Your task to perform on an android device: Is it going to rain tomorrow? Image 0: 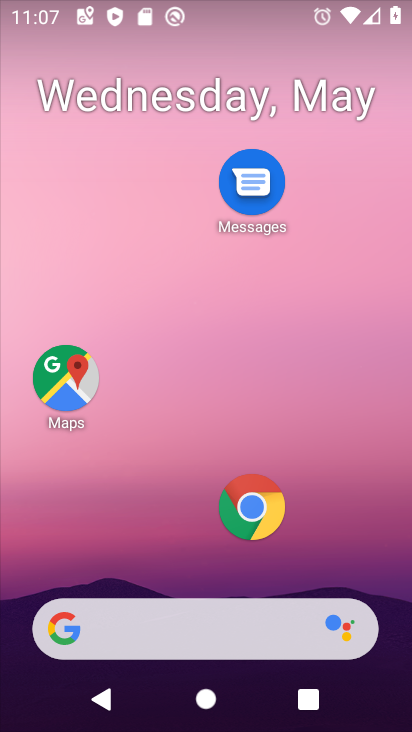
Step 0: press home button
Your task to perform on an android device: Is it going to rain tomorrow? Image 1: 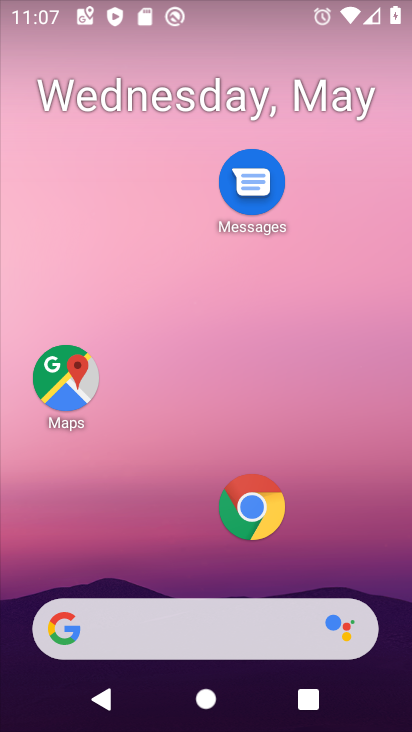
Step 1: drag from (206, 577) to (217, 97)
Your task to perform on an android device: Is it going to rain tomorrow? Image 2: 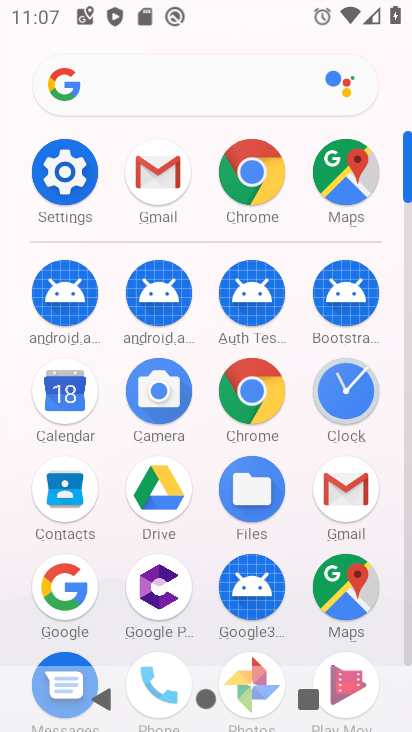
Step 2: press home button
Your task to perform on an android device: Is it going to rain tomorrow? Image 3: 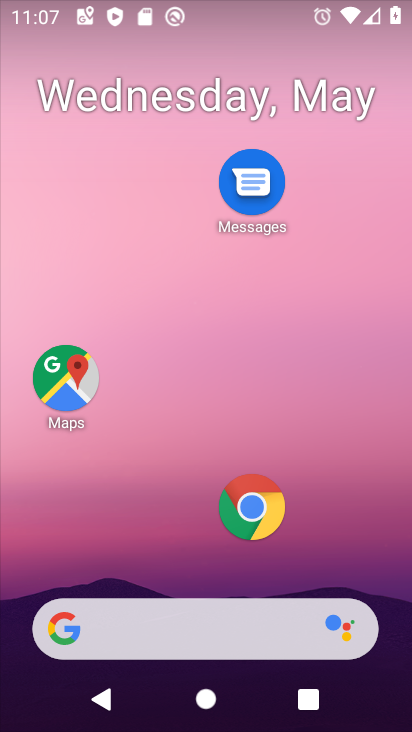
Step 3: drag from (9, 262) to (381, 298)
Your task to perform on an android device: Is it going to rain tomorrow? Image 4: 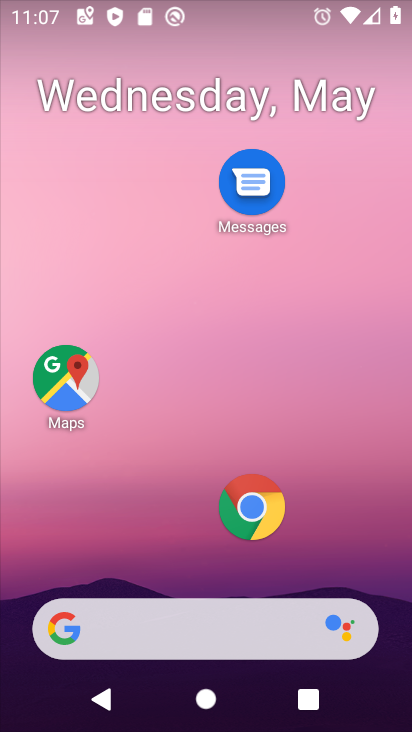
Step 4: drag from (5, 273) to (400, 312)
Your task to perform on an android device: Is it going to rain tomorrow? Image 5: 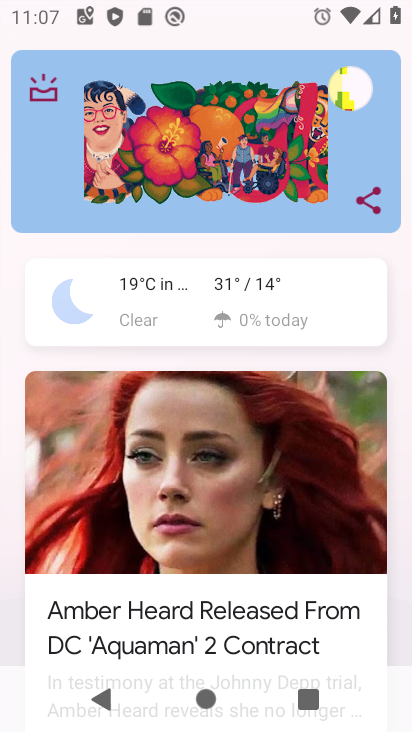
Step 5: click (252, 289)
Your task to perform on an android device: Is it going to rain tomorrow? Image 6: 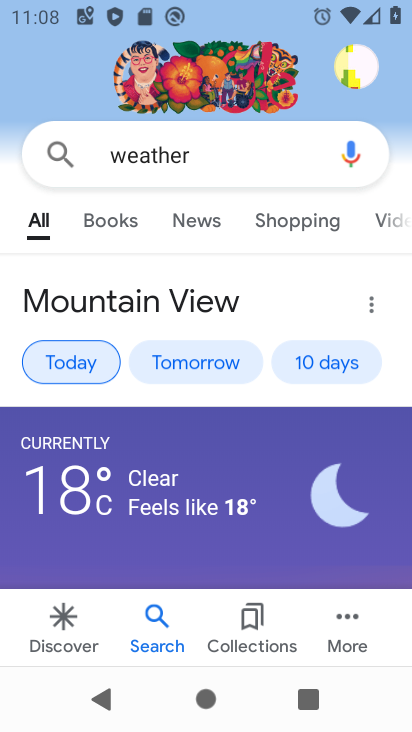
Step 6: drag from (216, 545) to (242, 299)
Your task to perform on an android device: Is it going to rain tomorrow? Image 7: 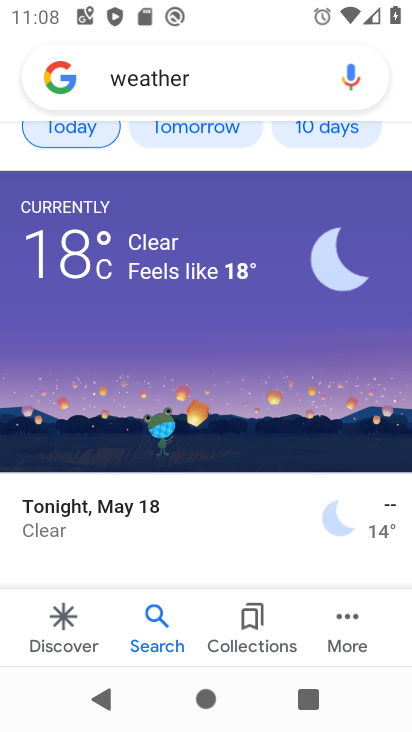
Step 7: click (195, 131)
Your task to perform on an android device: Is it going to rain tomorrow? Image 8: 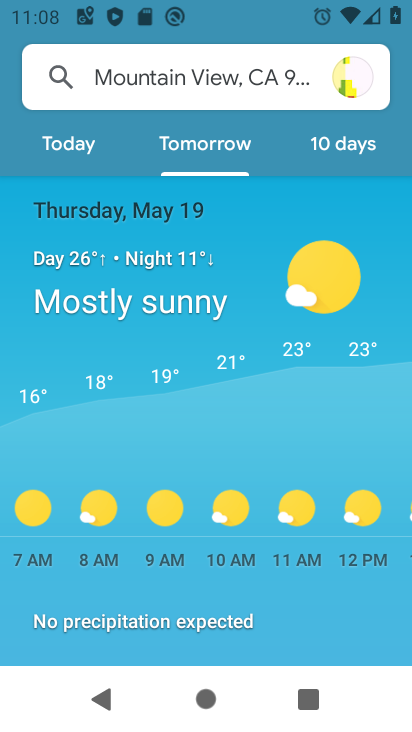
Step 8: task complete